Your task to perform on an android device: turn notification dots off Image 0: 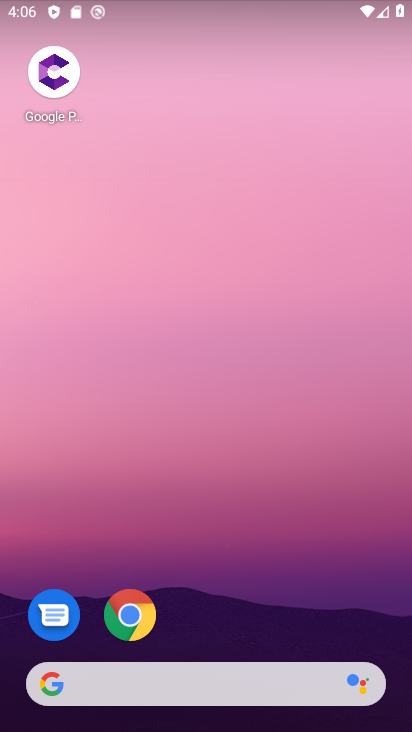
Step 0: drag from (202, 665) to (258, 256)
Your task to perform on an android device: turn notification dots off Image 1: 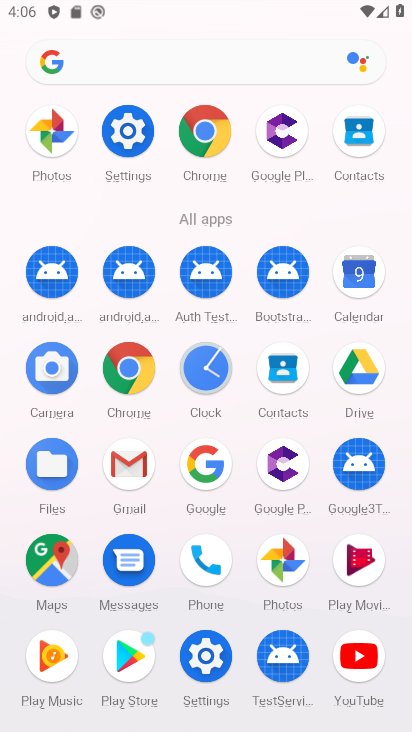
Step 1: click (119, 134)
Your task to perform on an android device: turn notification dots off Image 2: 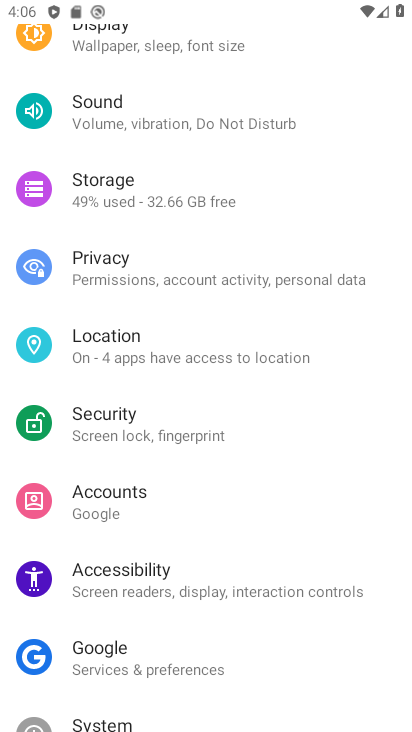
Step 2: drag from (210, 77) to (262, 549)
Your task to perform on an android device: turn notification dots off Image 3: 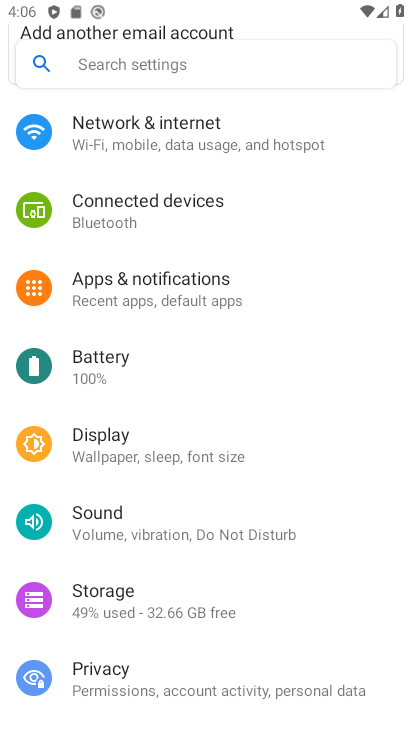
Step 3: click (164, 276)
Your task to perform on an android device: turn notification dots off Image 4: 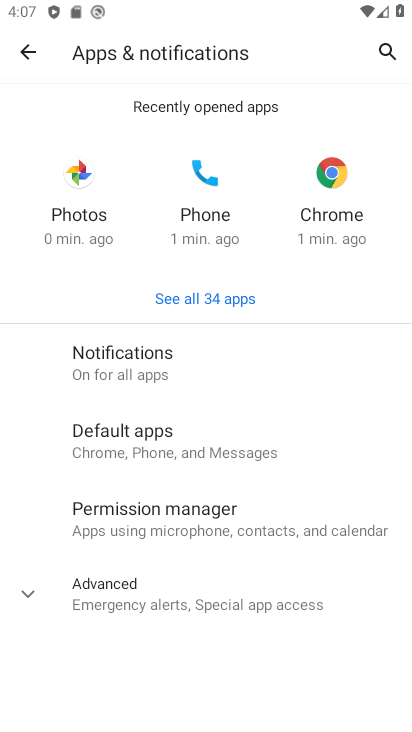
Step 4: click (123, 594)
Your task to perform on an android device: turn notification dots off Image 5: 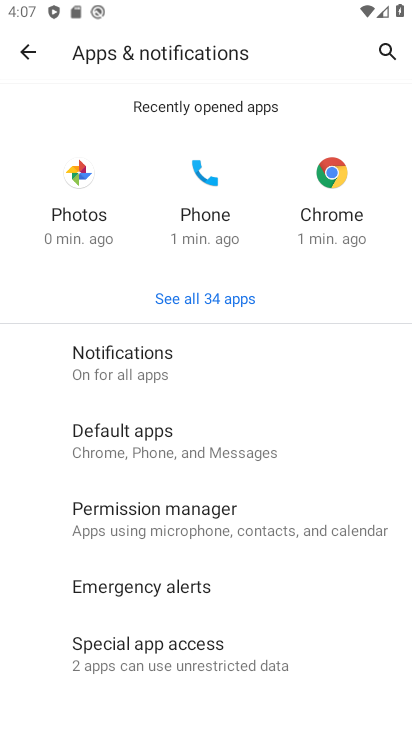
Step 5: drag from (141, 682) to (150, 300)
Your task to perform on an android device: turn notification dots off Image 6: 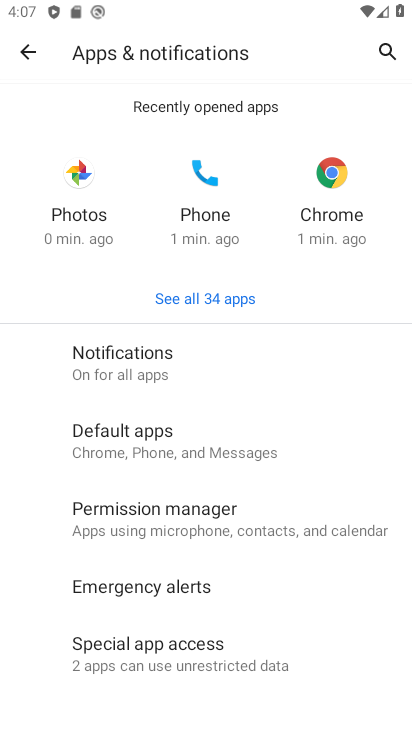
Step 6: drag from (187, 625) to (219, 298)
Your task to perform on an android device: turn notification dots off Image 7: 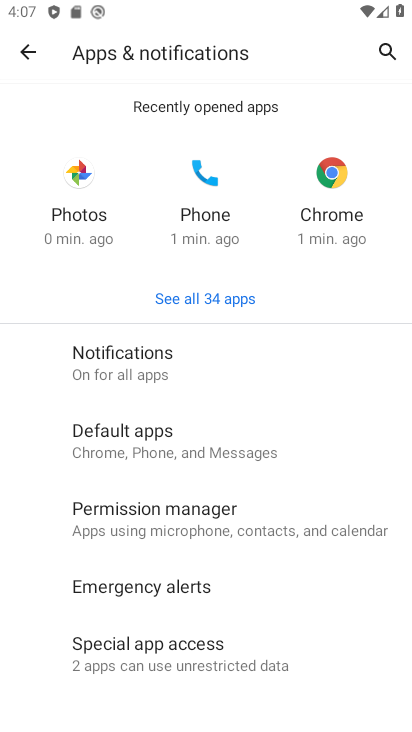
Step 7: click (156, 359)
Your task to perform on an android device: turn notification dots off Image 8: 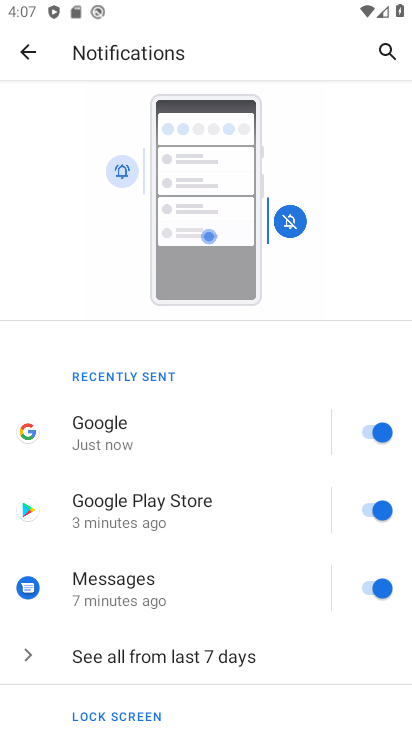
Step 8: drag from (174, 701) to (210, 288)
Your task to perform on an android device: turn notification dots off Image 9: 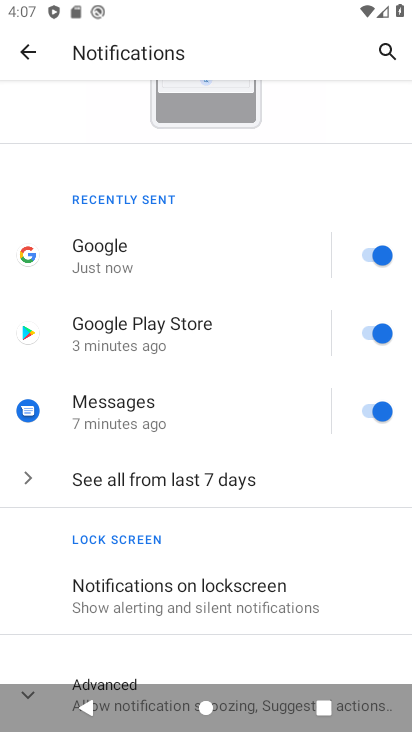
Step 9: drag from (185, 634) to (243, 280)
Your task to perform on an android device: turn notification dots off Image 10: 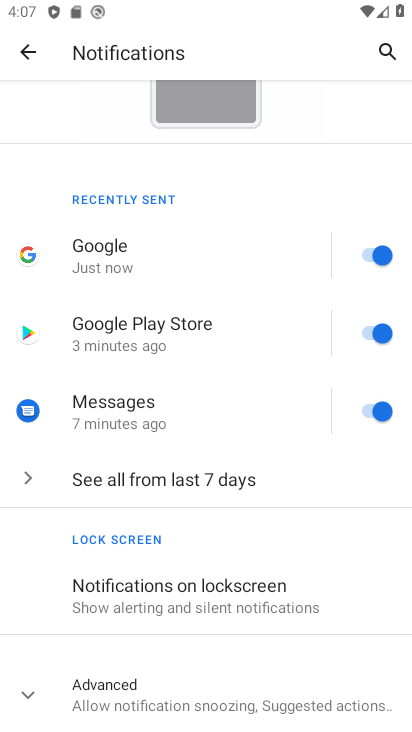
Step 10: click (137, 695)
Your task to perform on an android device: turn notification dots off Image 11: 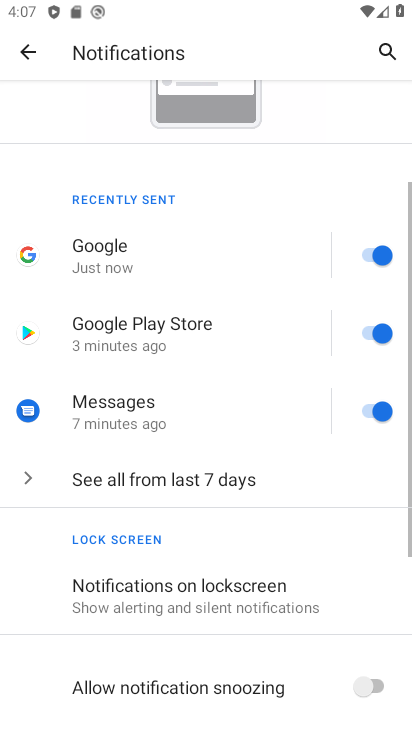
Step 11: drag from (141, 713) to (200, 314)
Your task to perform on an android device: turn notification dots off Image 12: 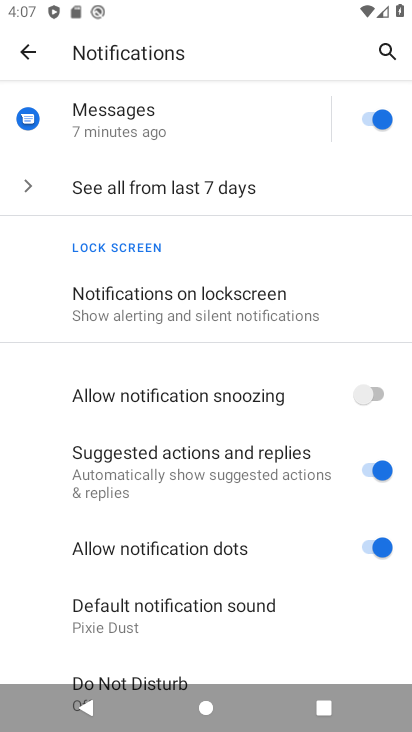
Step 12: drag from (217, 673) to (270, 326)
Your task to perform on an android device: turn notification dots off Image 13: 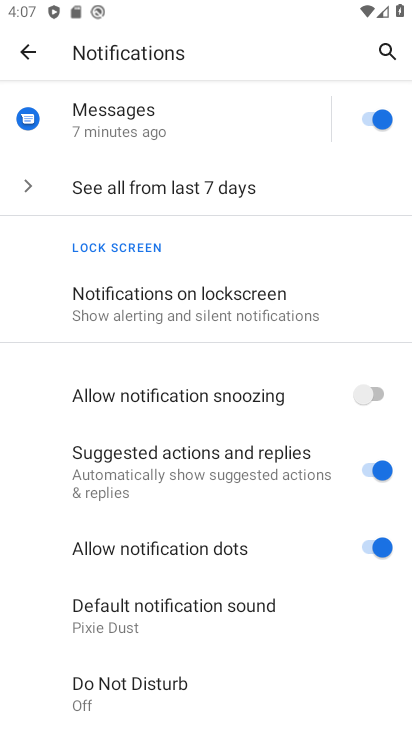
Step 13: click (371, 545)
Your task to perform on an android device: turn notification dots off Image 14: 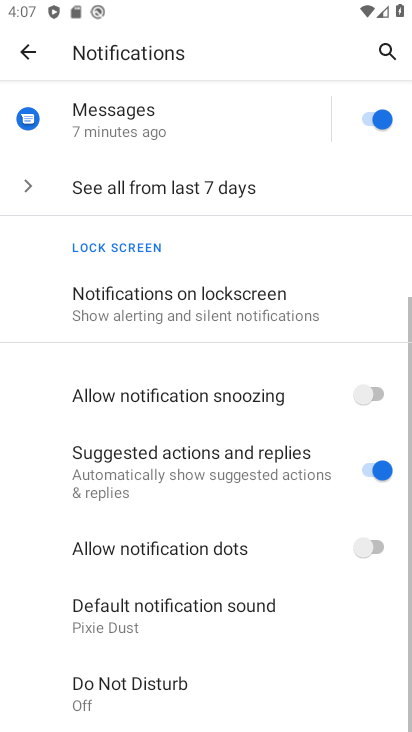
Step 14: task complete